Your task to perform on an android device: Show me the alarms in the clock app Image 0: 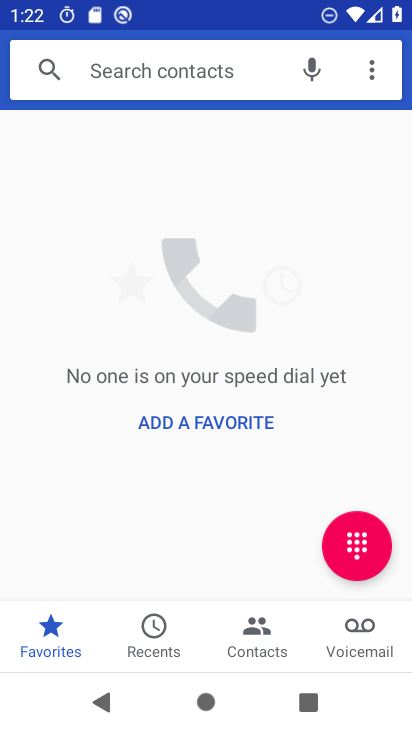
Step 0: press home button
Your task to perform on an android device: Show me the alarms in the clock app Image 1: 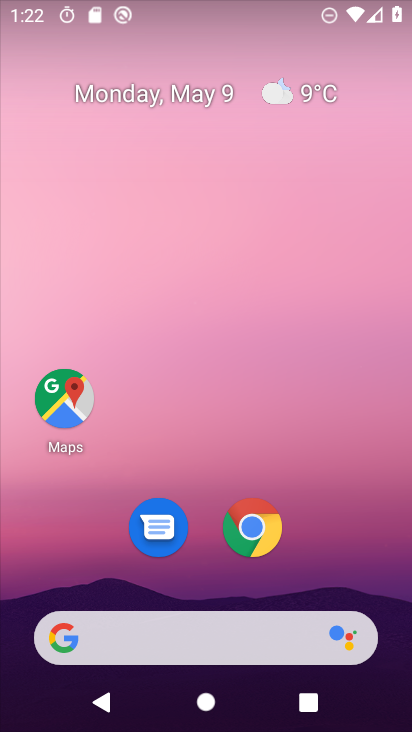
Step 1: drag from (217, 596) to (272, 22)
Your task to perform on an android device: Show me the alarms in the clock app Image 2: 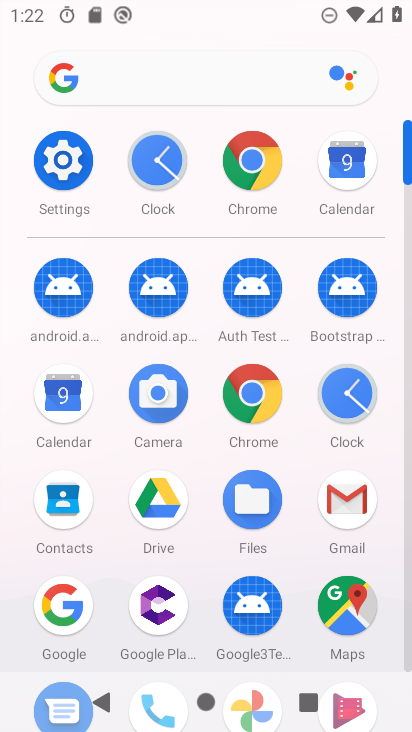
Step 2: click (348, 399)
Your task to perform on an android device: Show me the alarms in the clock app Image 3: 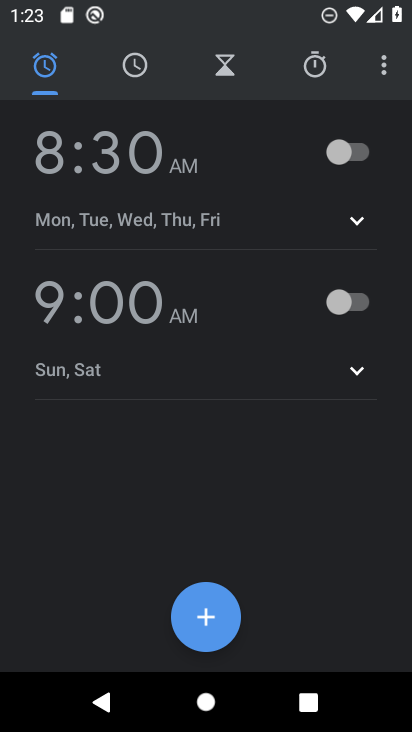
Step 3: task complete